Your task to perform on an android device: Go to Yahoo.com Image 0: 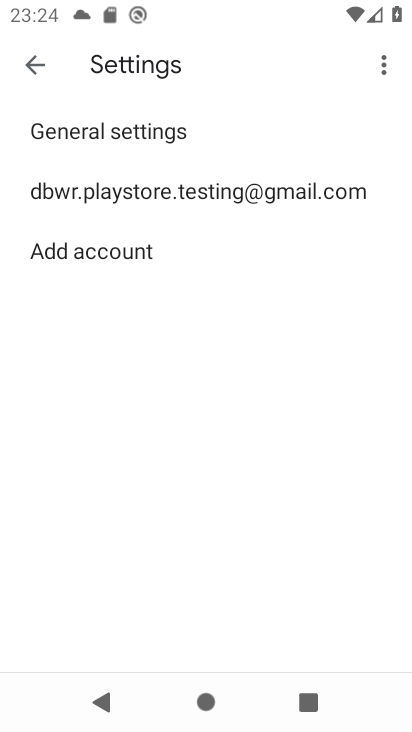
Step 0: press home button
Your task to perform on an android device: Go to Yahoo.com Image 1: 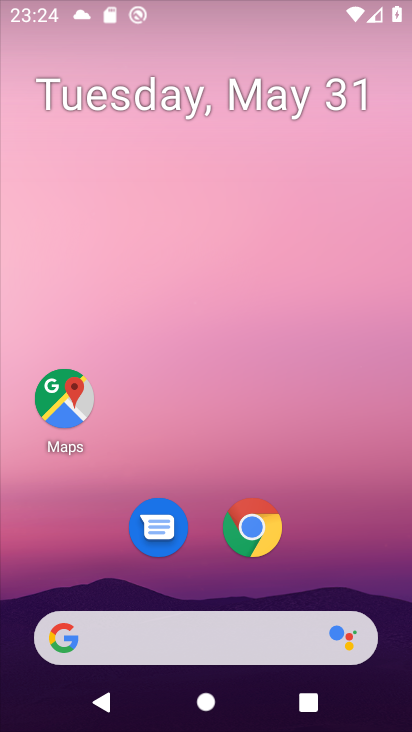
Step 1: click (314, 539)
Your task to perform on an android device: Go to Yahoo.com Image 2: 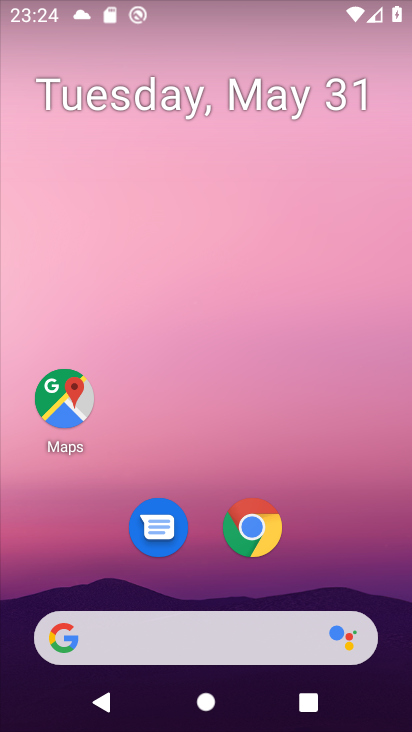
Step 2: click (267, 516)
Your task to perform on an android device: Go to Yahoo.com Image 3: 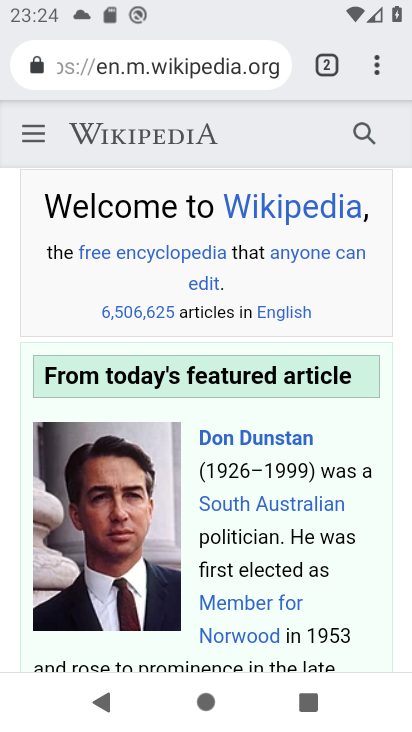
Step 3: click (331, 60)
Your task to perform on an android device: Go to Yahoo.com Image 4: 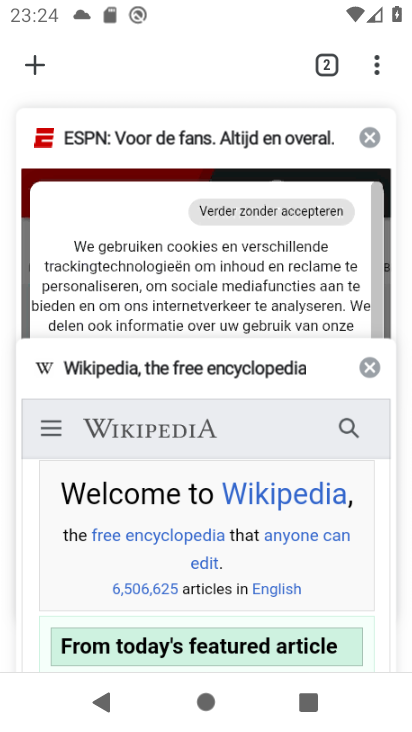
Step 4: click (41, 70)
Your task to perform on an android device: Go to Yahoo.com Image 5: 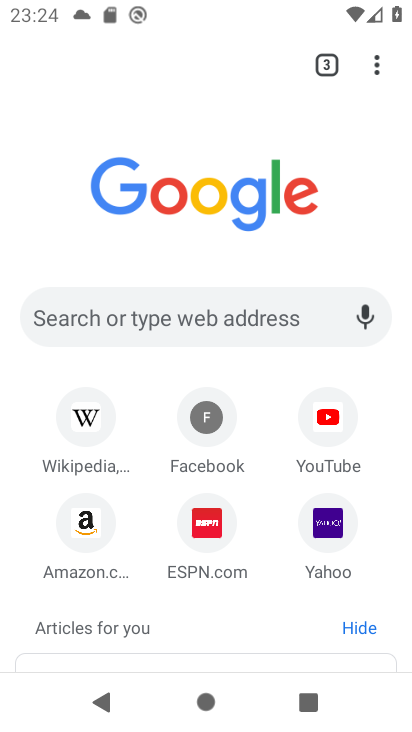
Step 5: click (319, 523)
Your task to perform on an android device: Go to Yahoo.com Image 6: 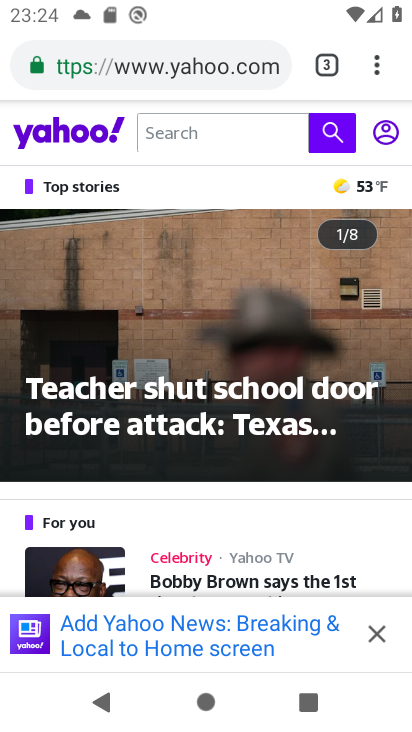
Step 6: task complete